Your task to perform on an android device: turn off improve location accuracy Image 0: 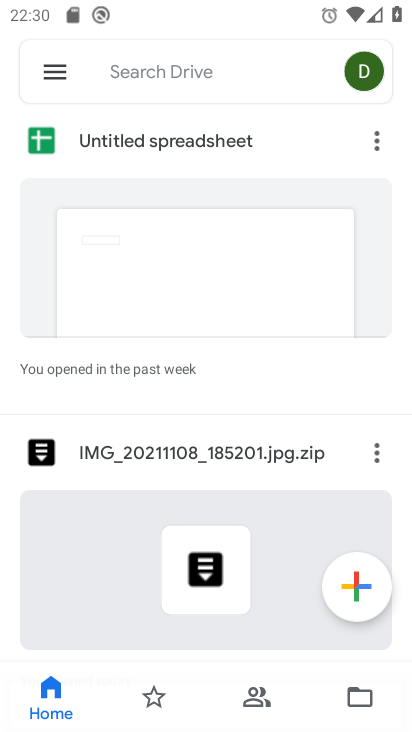
Step 0: press home button
Your task to perform on an android device: turn off improve location accuracy Image 1: 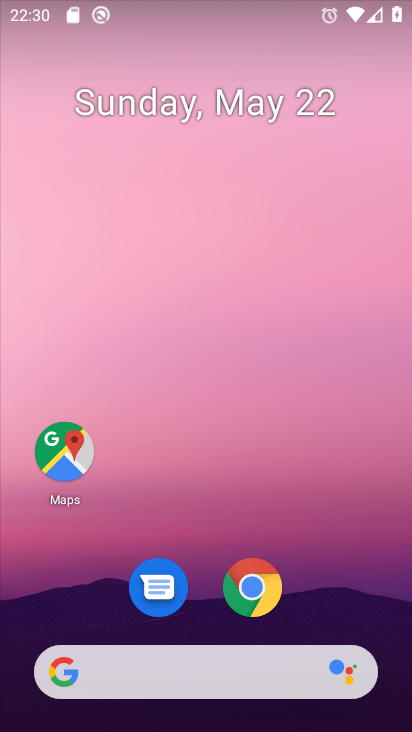
Step 1: drag from (227, 490) to (264, 15)
Your task to perform on an android device: turn off improve location accuracy Image 2: 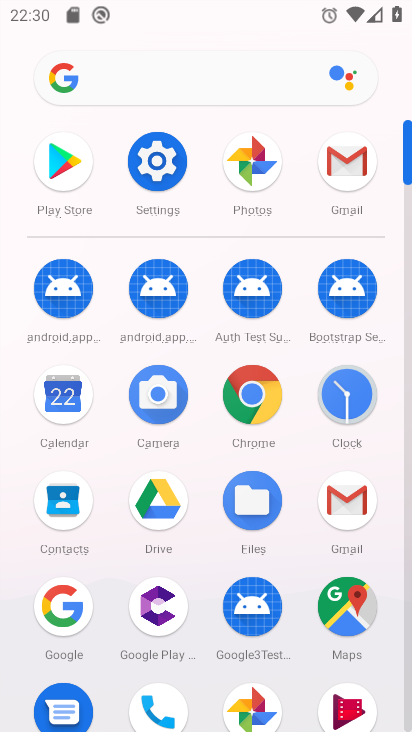
Step 2: click (171, 155)
Your task to perform on an android device: turn off improve location accuracy Image 3: 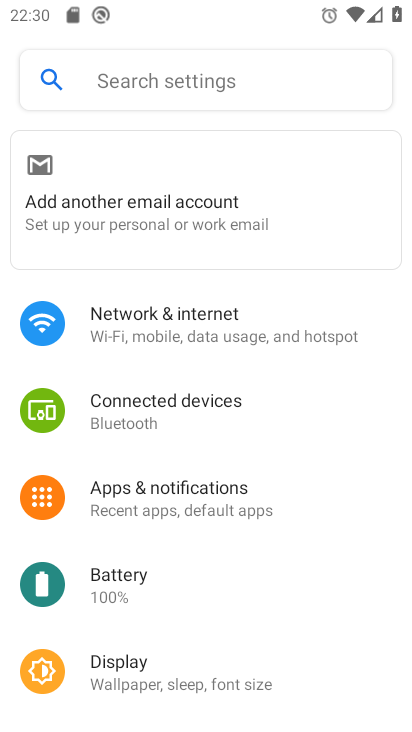
Step 3: drag from (184, 599) to (282, 74)
Your task to perform on an android device: turn off improve location accuracy Image 4: 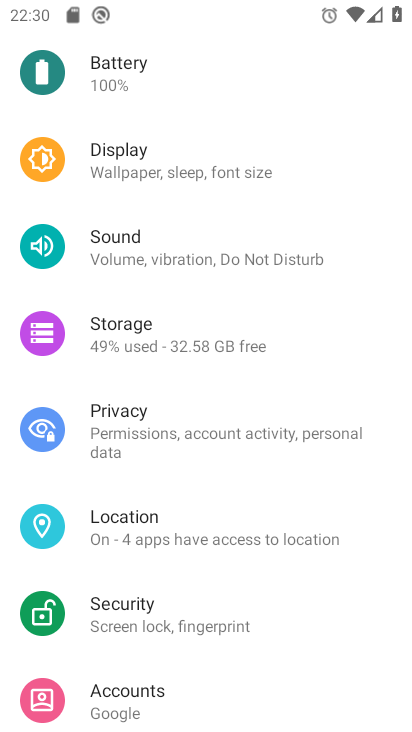
Step 4: click (271, 526)
Your task to perform on an android device: turn off improve location accuracy Image 5: 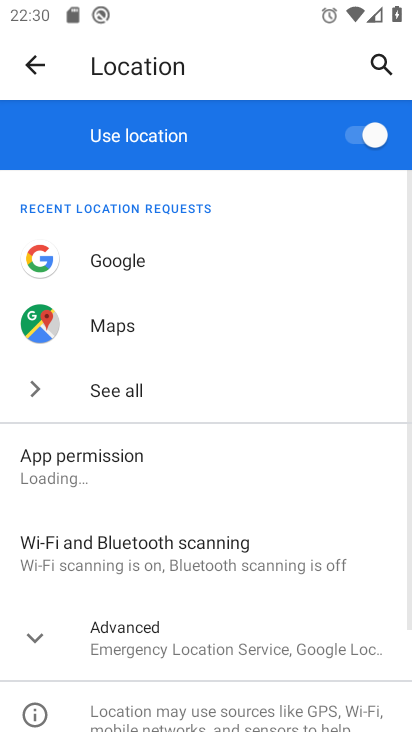
Step 5: drag from (268, 525) to (282, 245)
Your task to perform on an android device: turn off improve location accuracy Image 6: 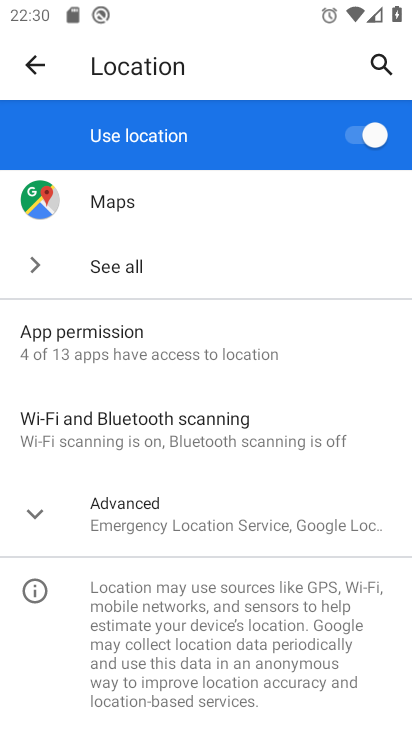
Step 6: click (167, 518)
Your task to perform on an android device: turn off improve location accuracy Image 7: 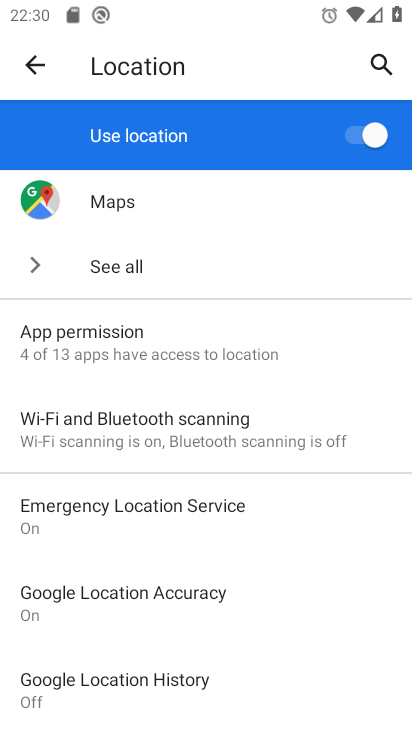
Step 7: click (203, 597)
Your task to perform on an android device: turn off improve location accuracy Image 8: 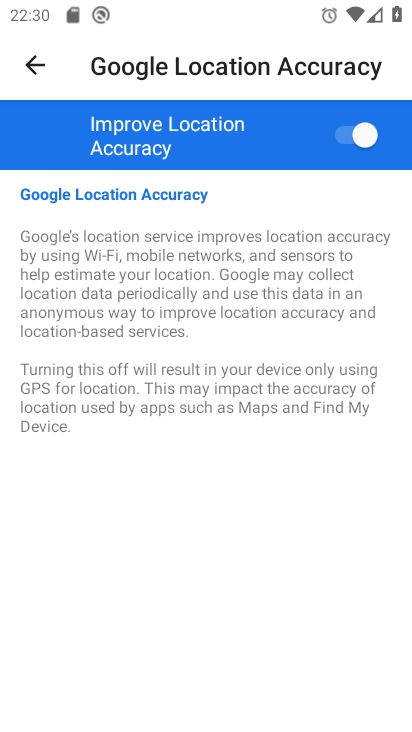
Step 8: click (350, 136)
Your task to perform on an android device: turn off improve location accuracy Image 9: 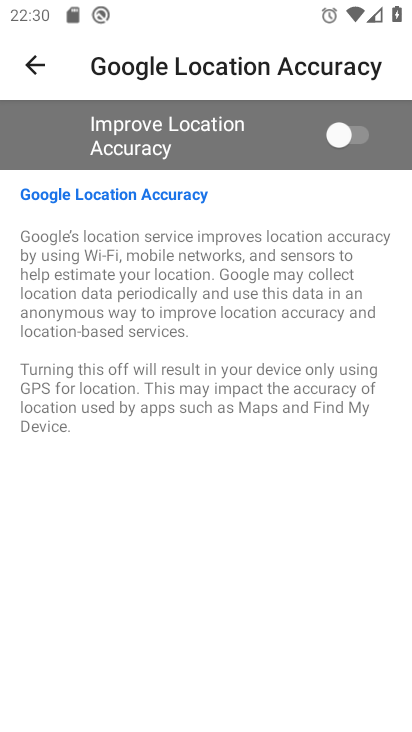
Step 9: task complete